Your task to perform on an android device: Open ESPN.com Image 0: 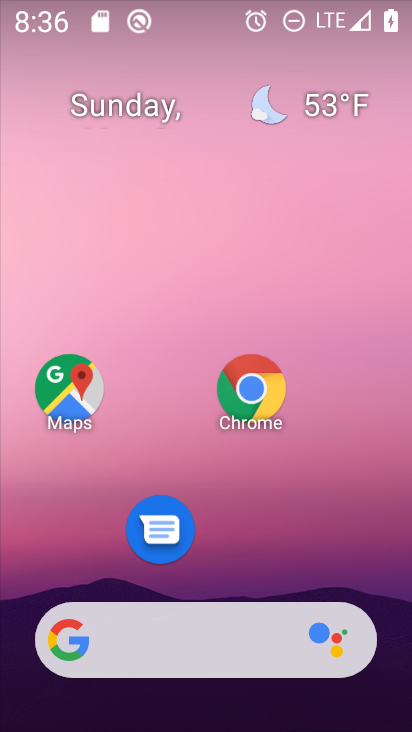
Step 0: click (246, 409)
Your task to perform on an android device: Open ESPN.com Image 1: 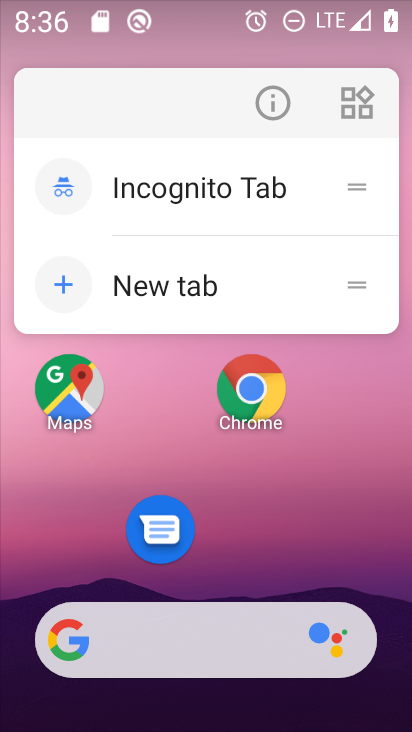
Step 1: click (246, 380)
Your task to perform on an android device: Open ESPN.com Image 2: 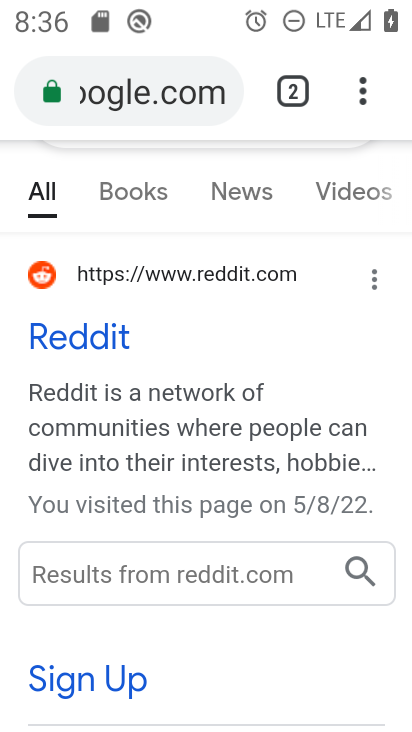
Step 2: click (172, 100)
Your task to perform on an android device: Open ESPN.com Image 3: 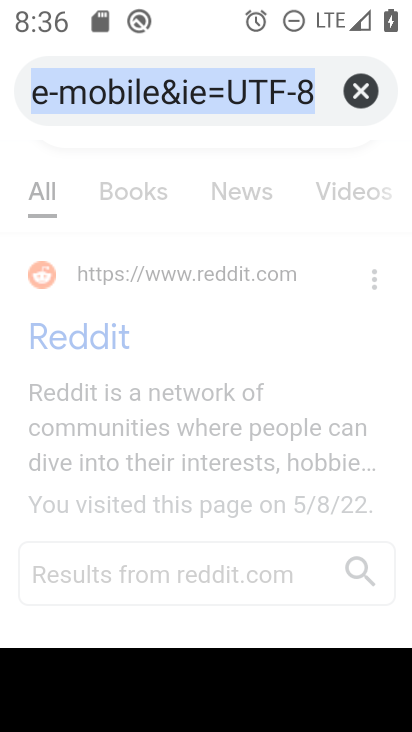
Step 3: type "ESPN.com"
Your task to perform on an android device: Open ESPN.com Image 4: 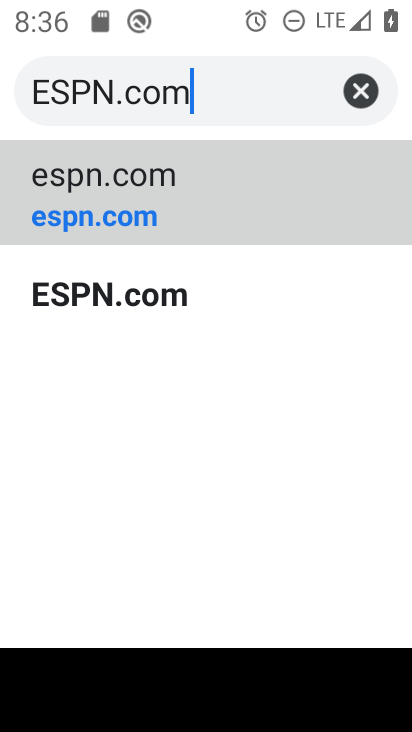
Step 4: click (172, 316)
Your task to perform on an android device: Open ESPN.com Image 5: 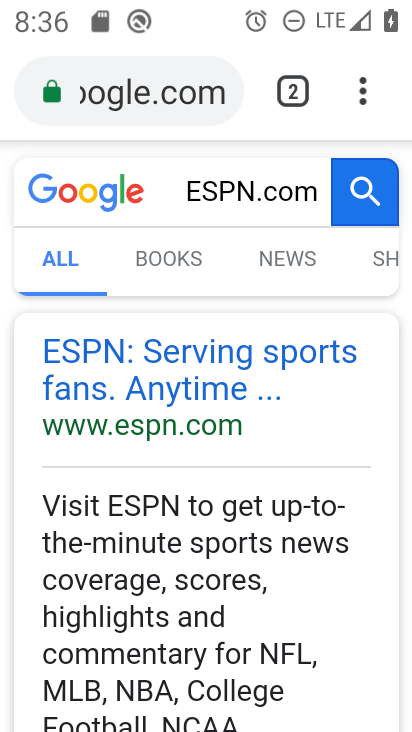
Step 5: task complete